Your task to perform on an android device: Open display settings Image 0: 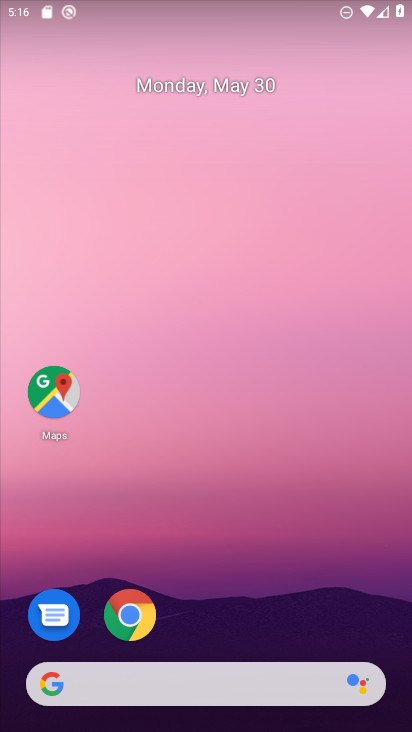
Step 0: drag from (203, 592) to (182, 123)
Your task to perform on an android device: Open display settings Image 1: 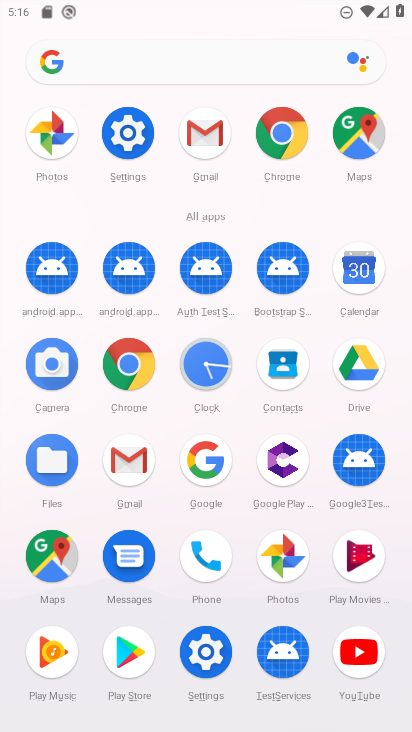
Step 1: click (146, 129)
Your task to perform on an android device: Open display settings Image 2: 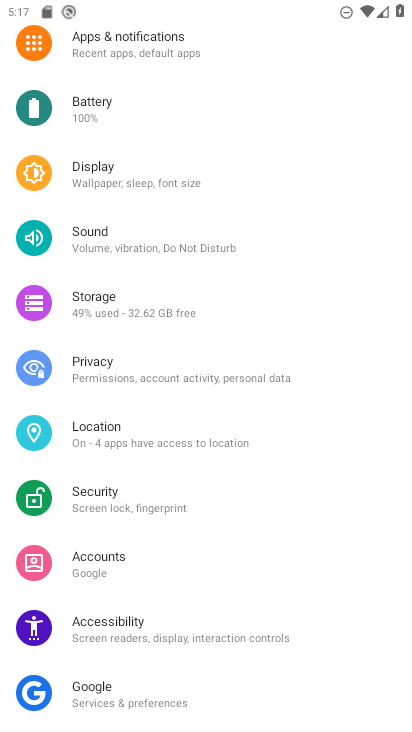
Step 2: click (132, 186)
Your task to perform on an android device: Open display settings Image 3: 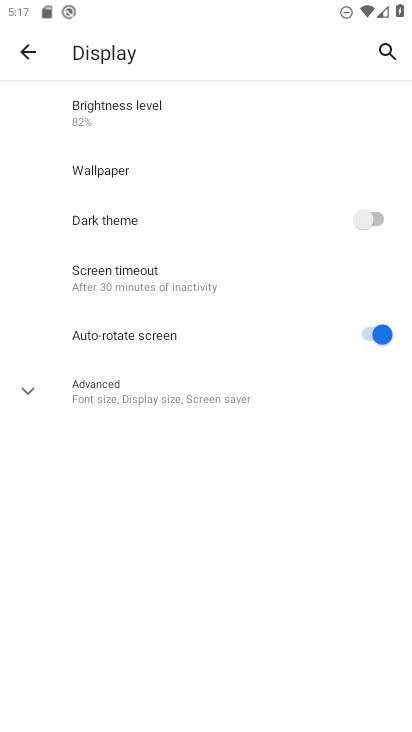
Step 3: task complete